Your task to perform on an android device: Open Google Chrome Image 0: 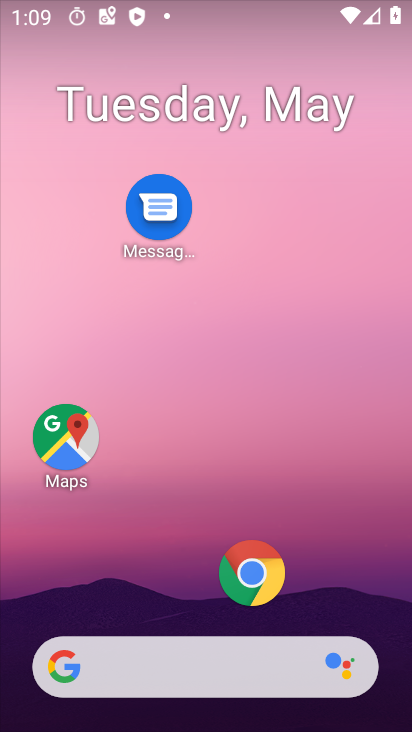
Step 0: click (248, 575)
Your task to perform on an android device: Open Google Chrome Image 1: 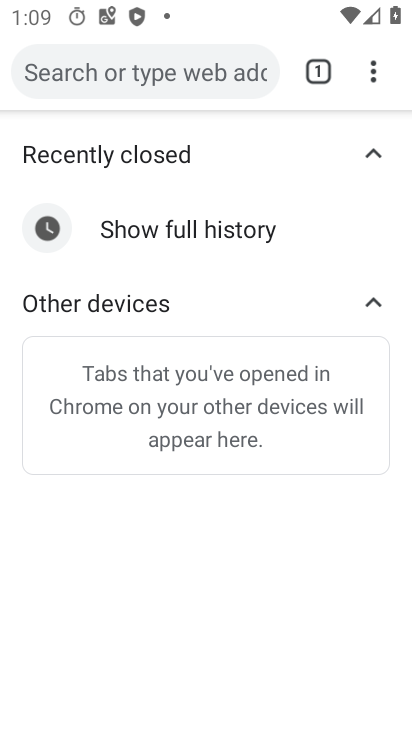
Step 1: click (365, 69)
Your task to perform on an android device: Open Google Chrome Image 2: 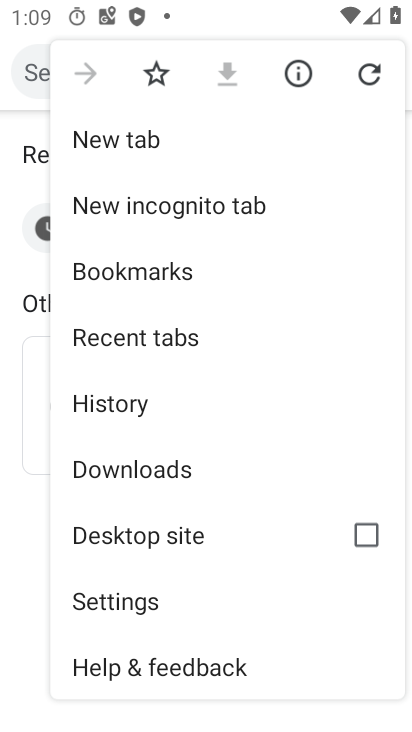
Step 2: click (135, 136)
Your task to perform on an android device: Open Google Chrome Image 3: 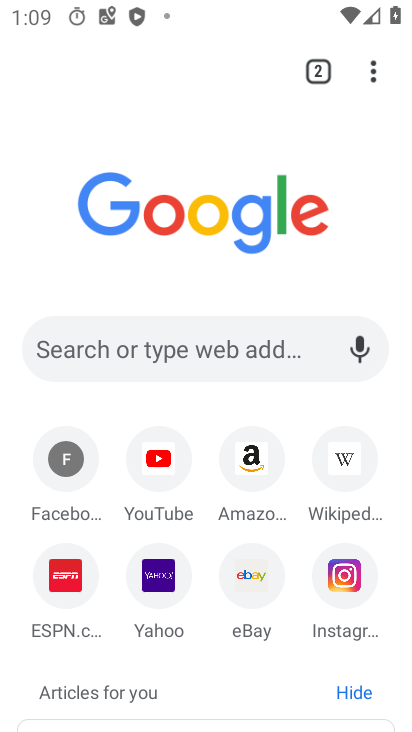
Step 3: task complete